Your task to perform on an android device: Clear all items from cart on costco.com. Search for "razer deathadder" on costco.com, select the first entry, and add it to the cart. Image 0: 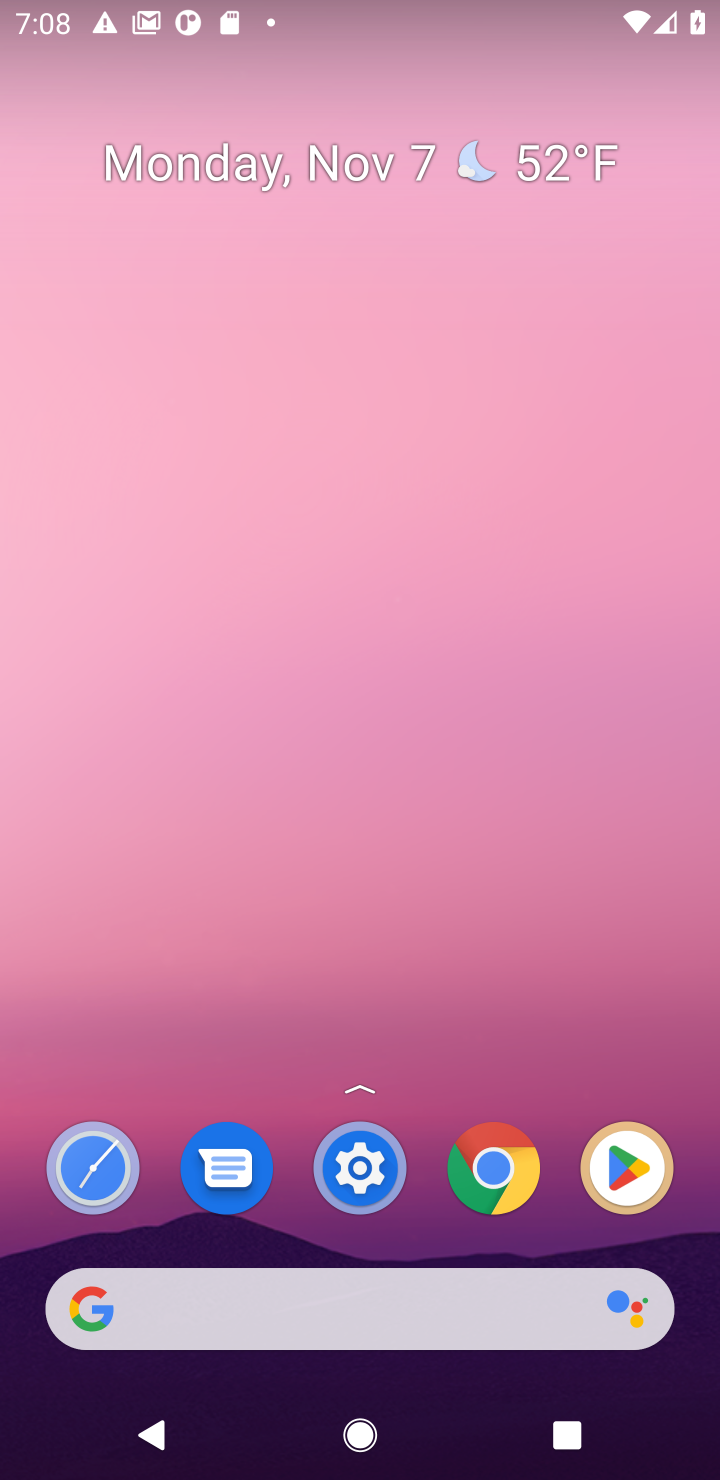
Step 0: click (262, 1335)
Your task to perform on an android device: Clear all items from cart on costco.com. Search for "razer deathadder" on costco.com, select the first entry, and add it to the cart. Image 1: 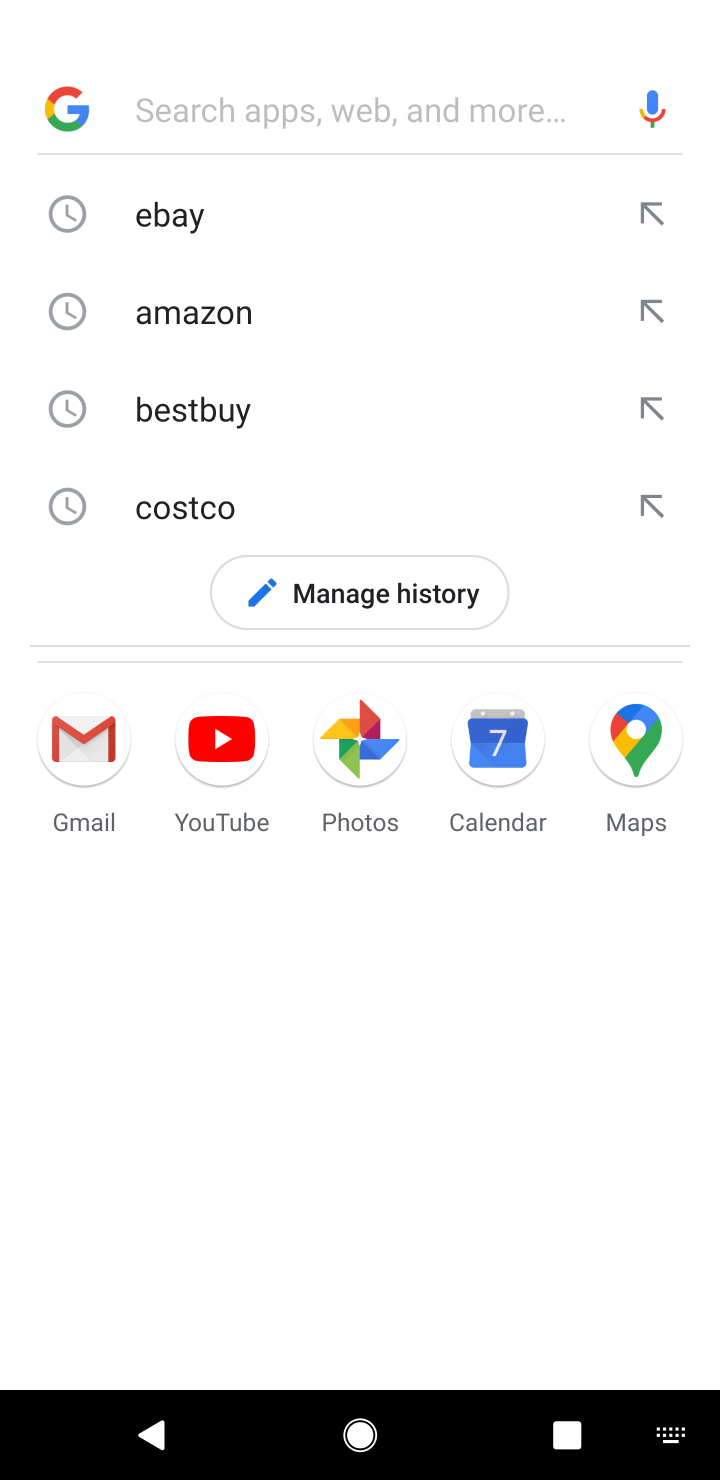
Step 1: click (223, 531)
Your task to perform on an android device: Clear all items from cart on costco.com. Search for "razer deathadder" on costco.com, select the first entry, and add it to the cart. Image 2: 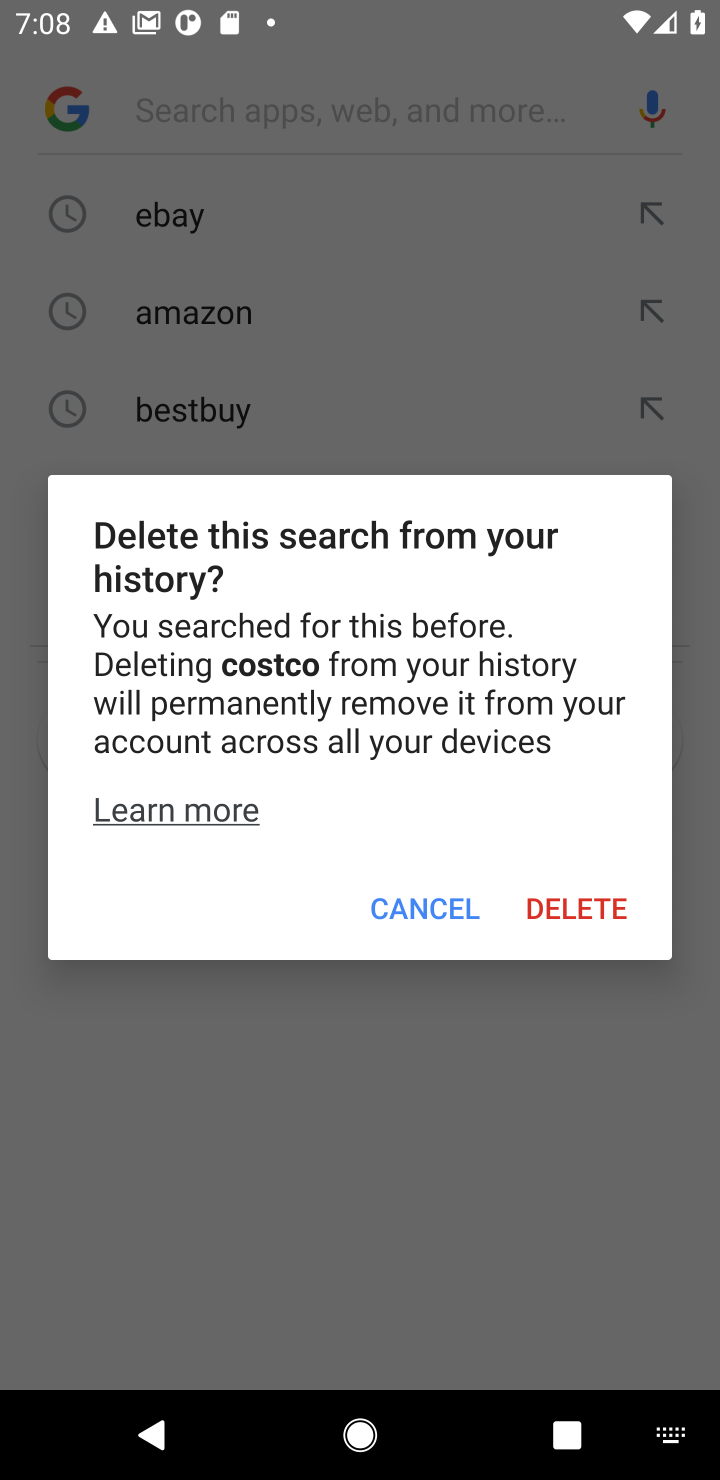
Step 2: click (434, 914)
Your task to perform on an android device: Clear all items from cart on costco.com. Search for "razer deathadder" on costco.com, select the first entry, and add it to the cart. Image 3: 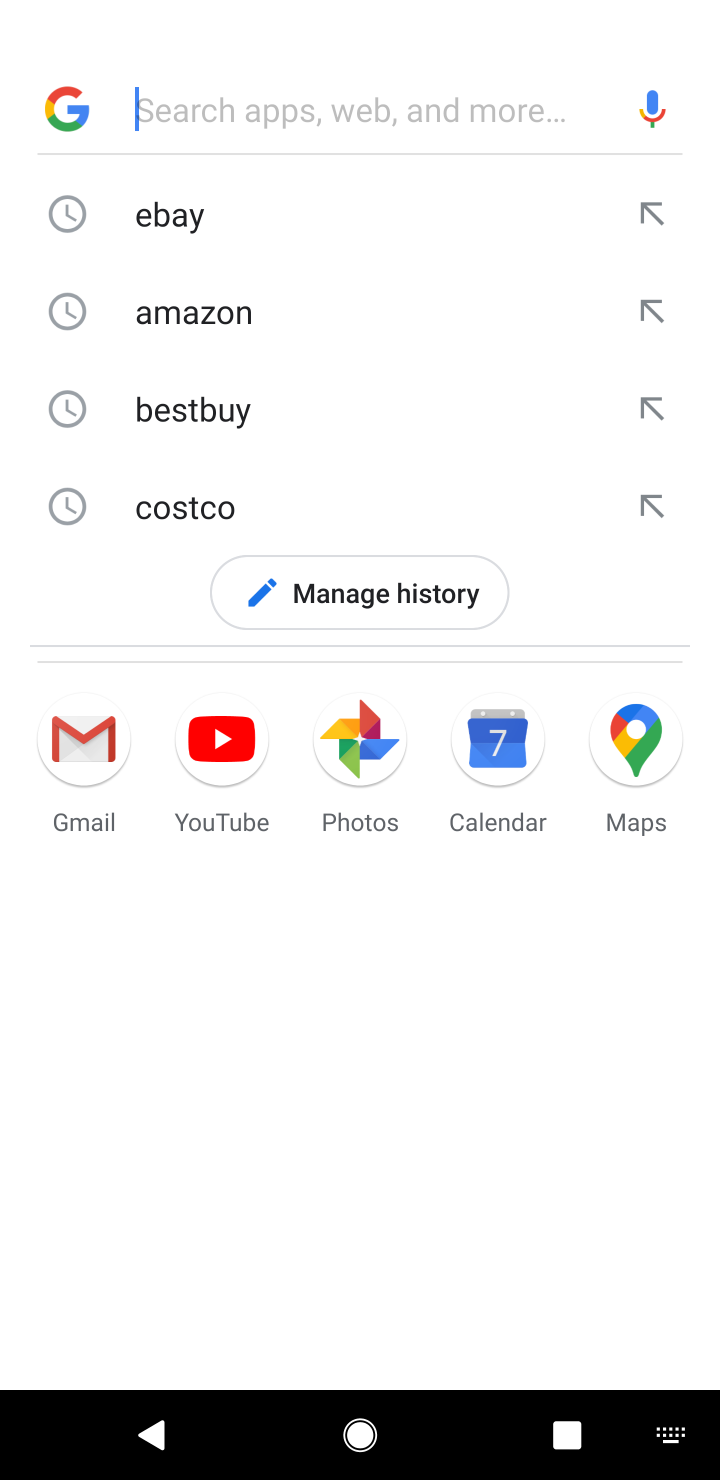
Step 3: type "costco.com"
Your task to perform on an android device: Clear all items from cart on costco.com. Search for "razer deathadder" on costco.com, select the first entry, and add it to the cart. Image 4: 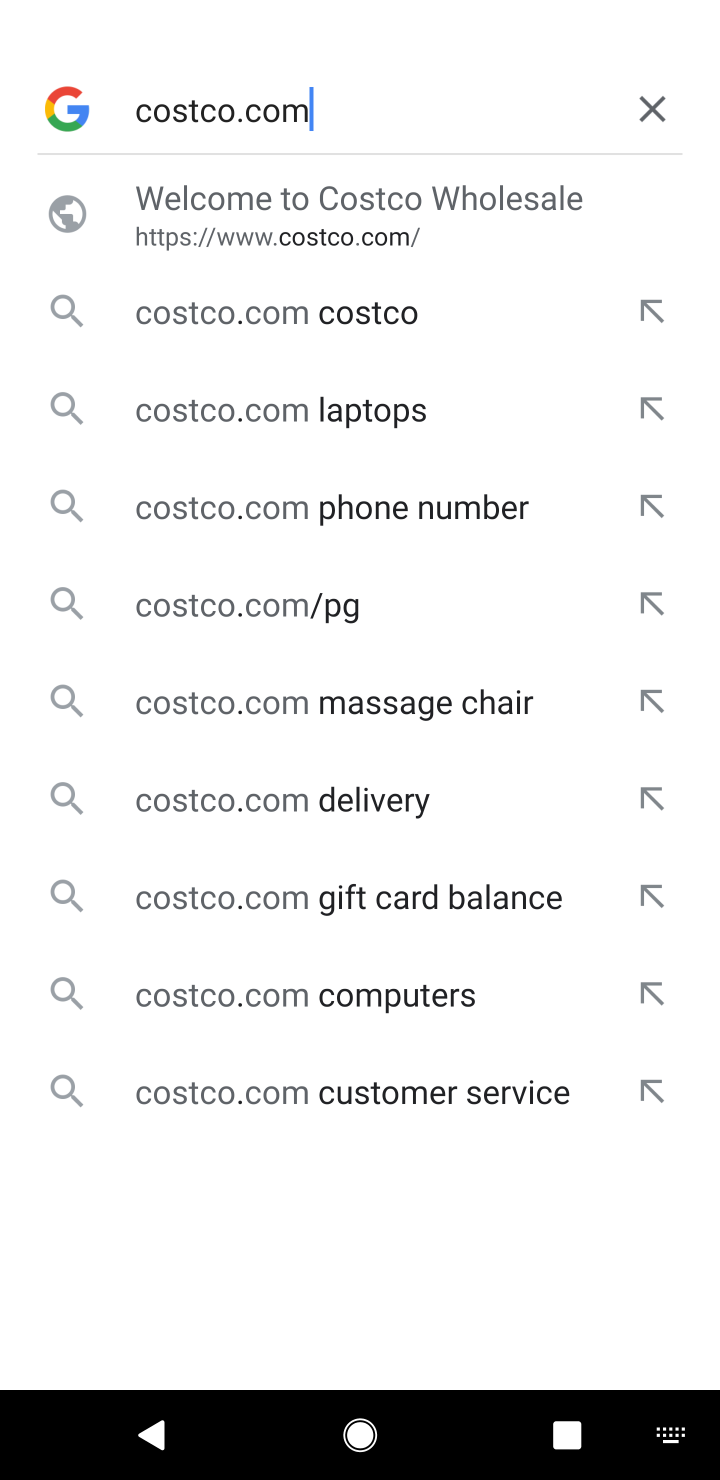
Step 4: type ""
Your task to perform on an android device: Clear all items from cart on costco.com. Search for "razer deathadder" on costco.com, select the first entry, and add it to the cart. Image 5: 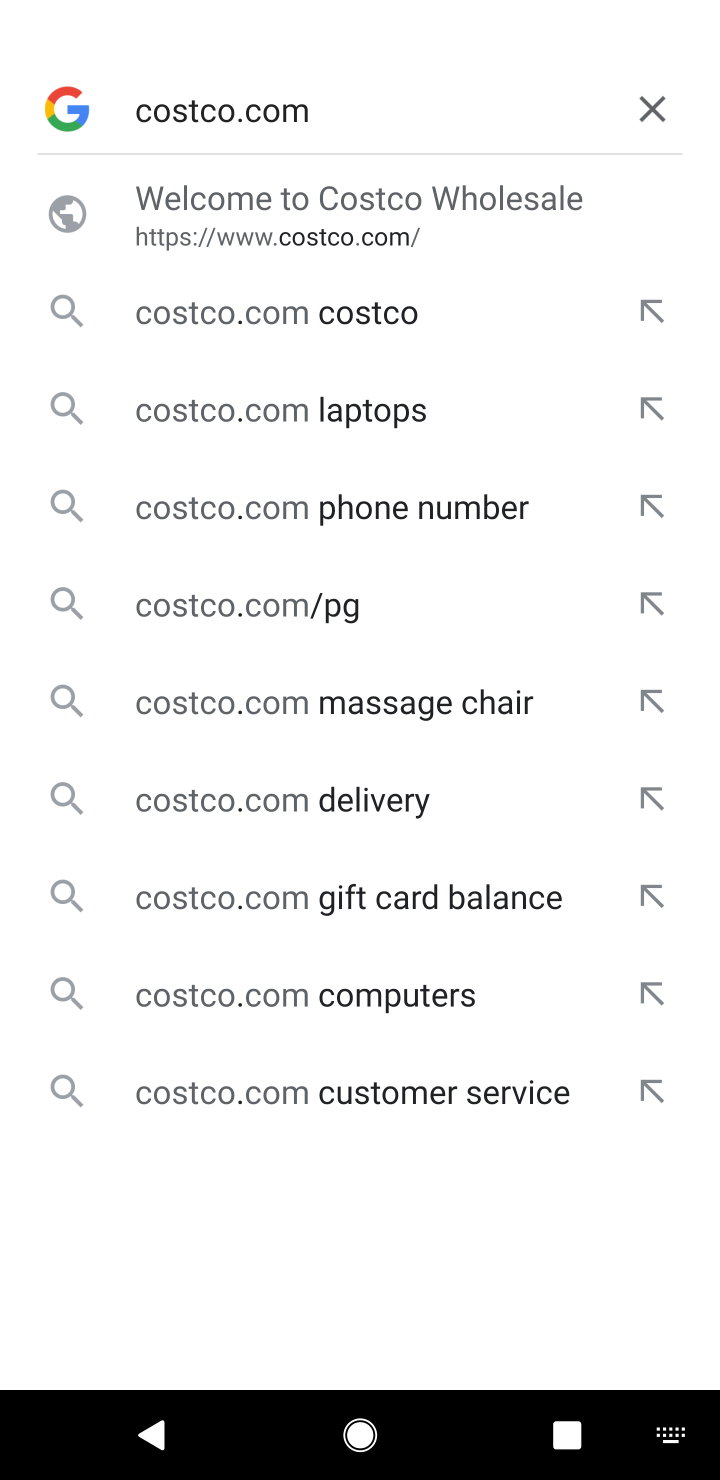
Step 5: press enter
Your task to perform on an android device: Clear all items from cart on costco.com. Search for "razer deathadder" on costco.com, select the first entry, and add it to the cart. Image 6: 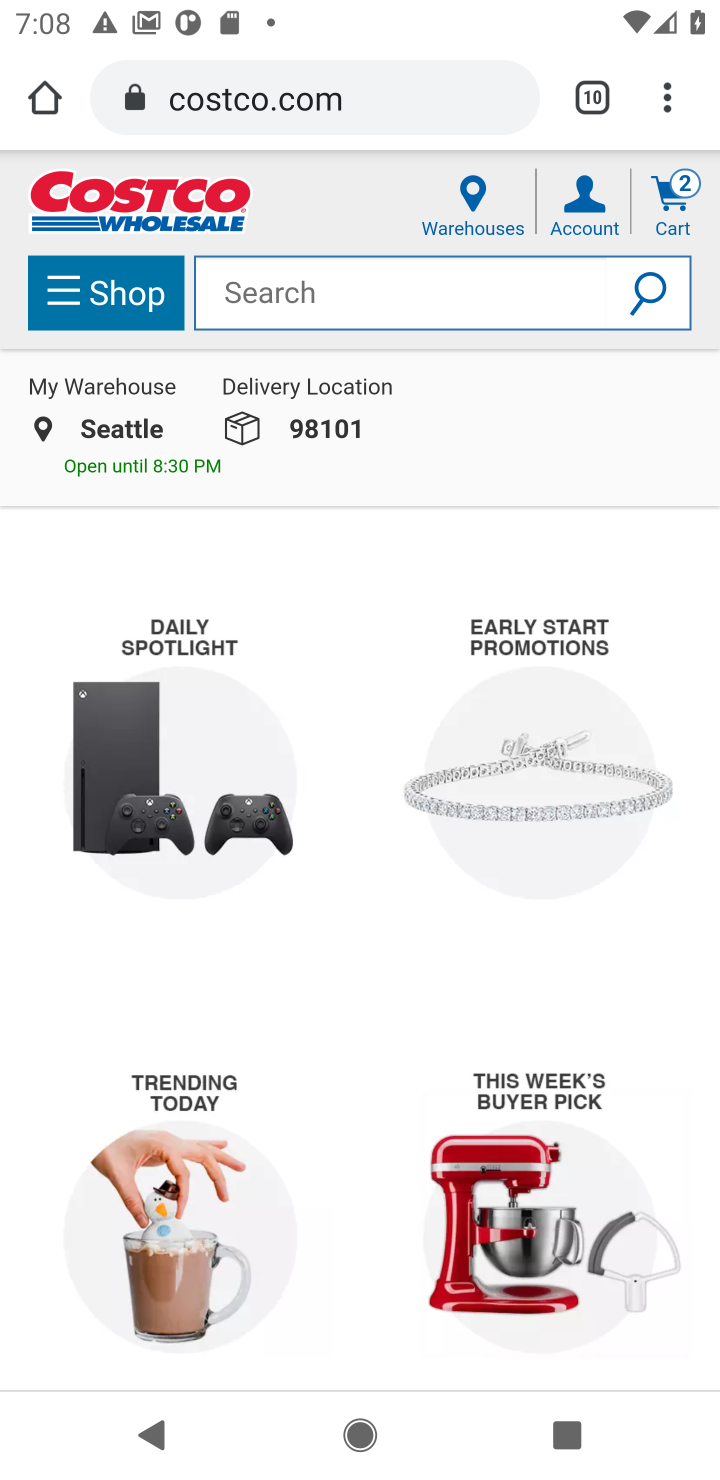
Step 6: click (340, 302)
Your task to perform on an android device: Clear all items from cart on costco.com. Search for "razer deathadder" on costco.com, select the first entry, and add it to the cart. Image 7: 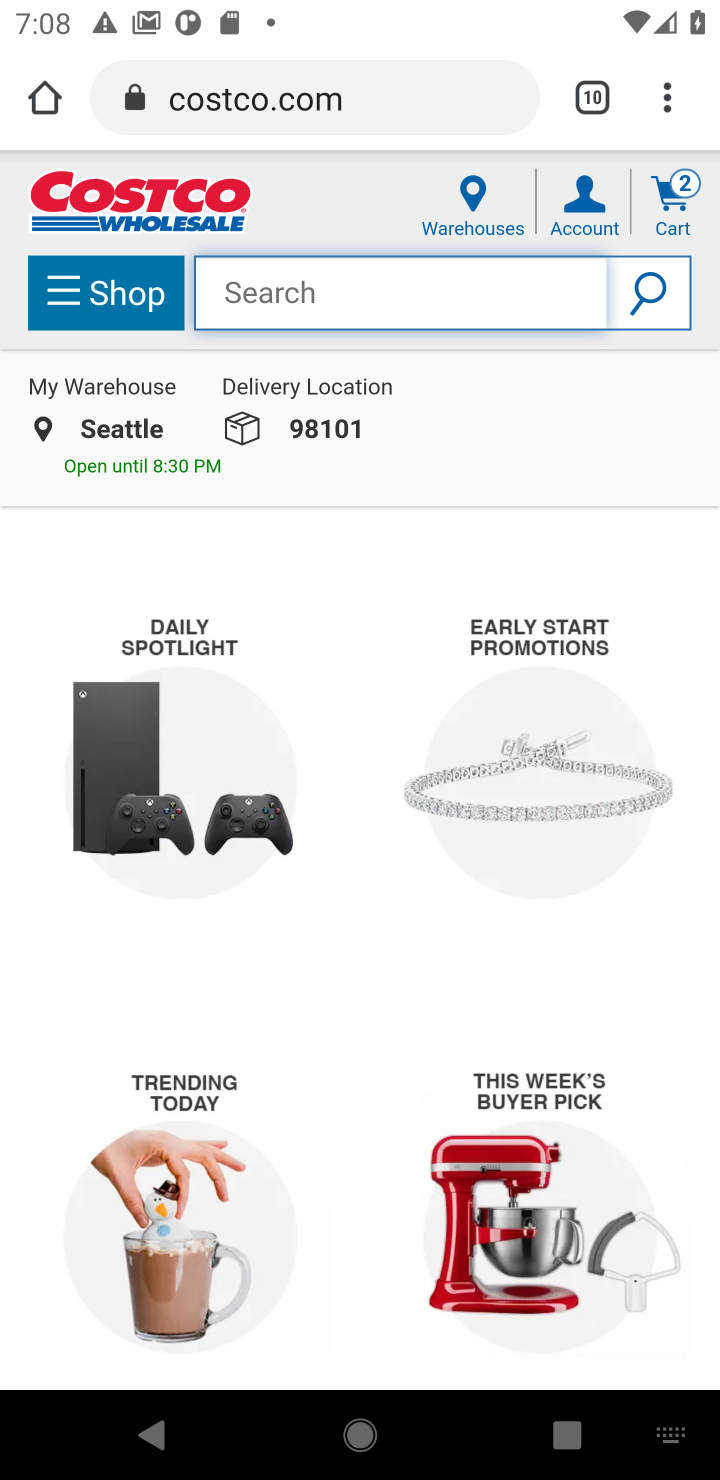
Step 7: click (340, 302)
Your task to perform on an android device: Clear all items from cart on costco.com. Search for "razer deathadder" on costco.com, select the first entry, and add it to the cart. Image 8: 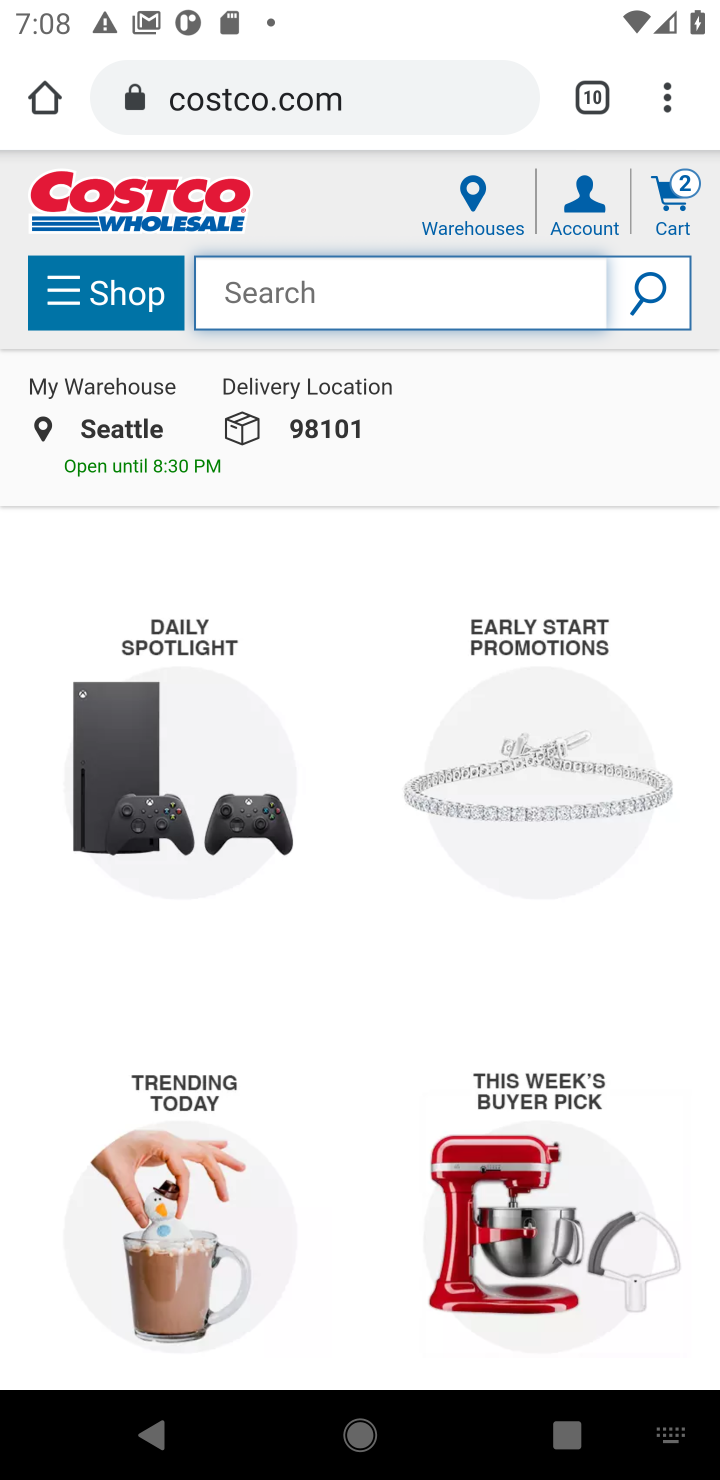
Step 8: click (681, 188)
Your task to perform on an android device: Clear all items from cart on costco.com. Search for "razer deathadder" on costco.com, select the first entry, and add it to the cart. Image 9: 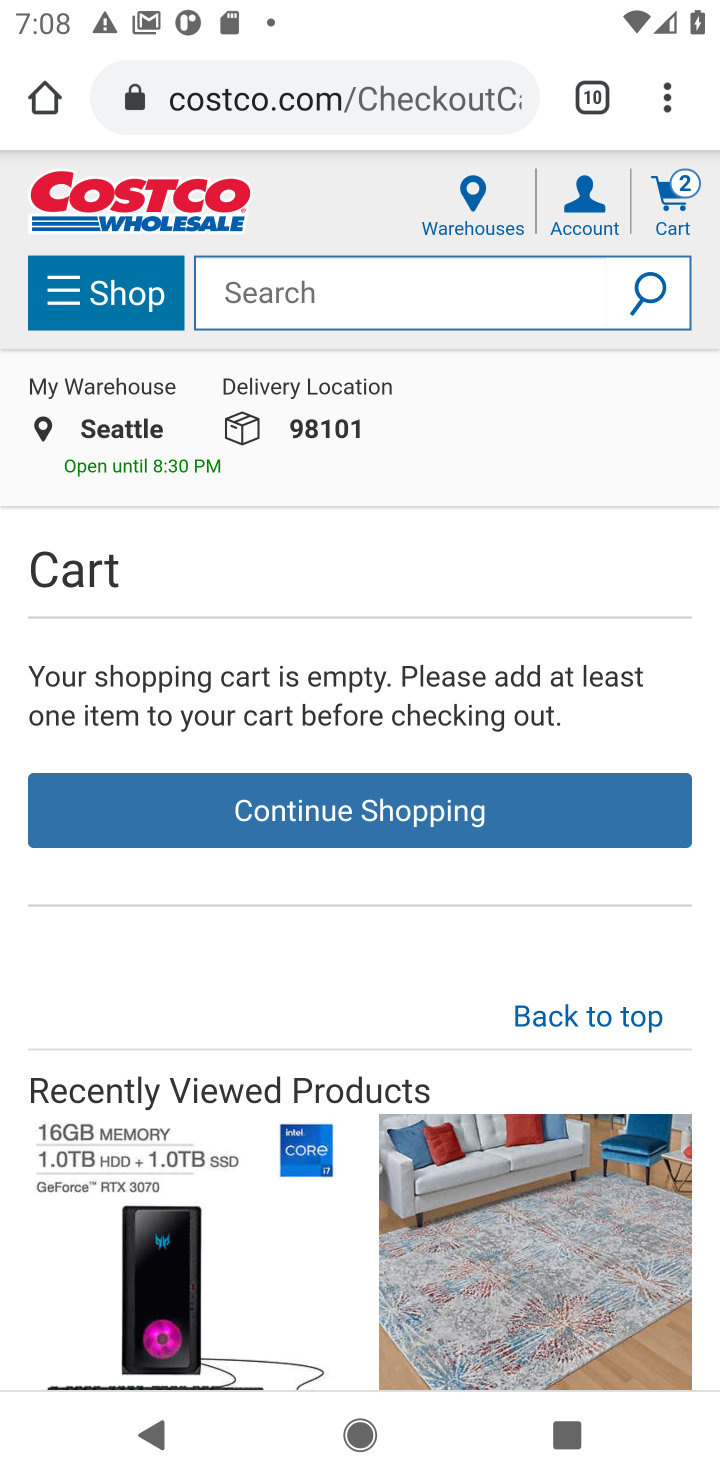
Step 9: drag from (283, 973) to (350, 482)
Your task to perform on an android device: Clear all items from cart on costco.com. Search for "razer deathadder" on costco.com, select the first entry, and add it to the cart. Image 10: 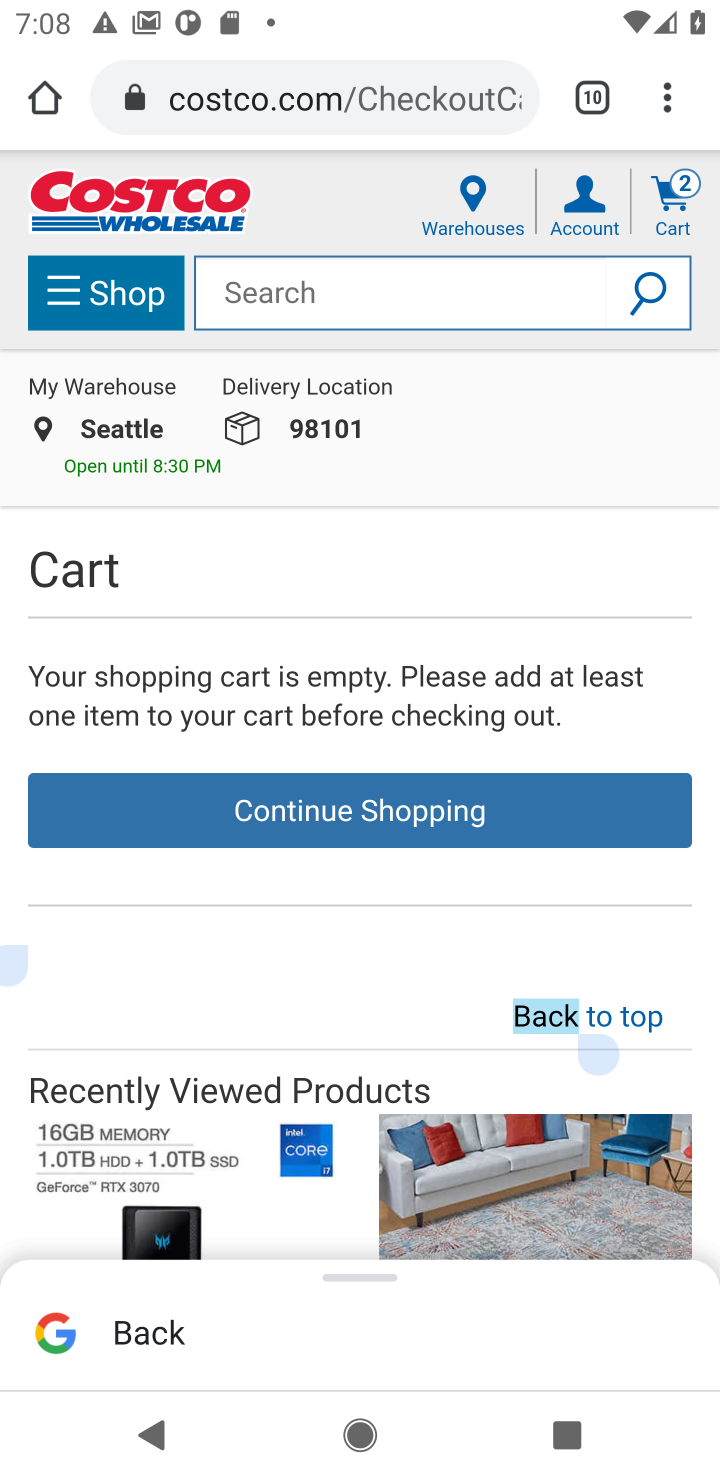
Step 10: drag from (325, 947) to (367, 541)
Your task to perform on an android device: Clear all items from cart on costco.com. Search for "razer deathadder" on costco.com, select the first entry, and add it to the cart. Image 11: 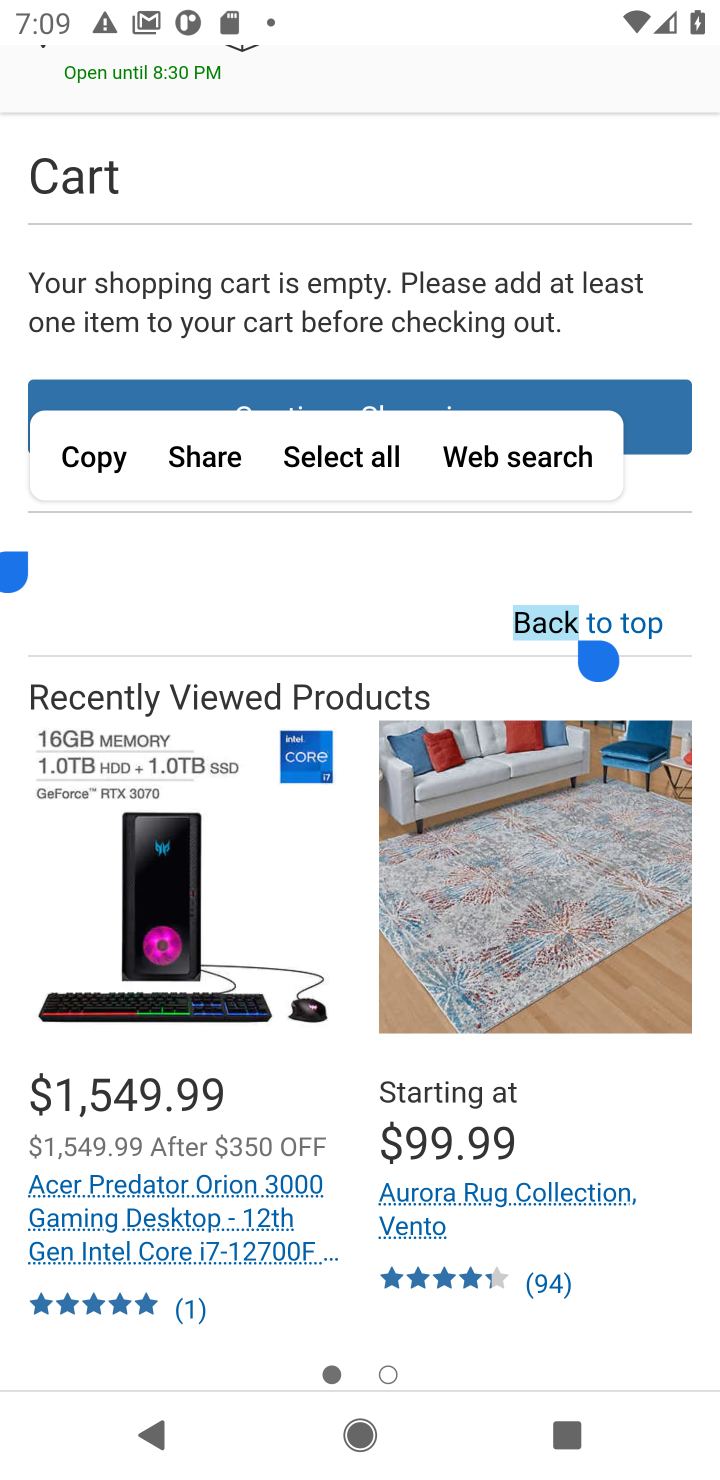
Step 11: click (274, 585)
Your task to perform on an android device: Clear all items from cart on costco.com. Search for "razer deathadder" on costco.com, select the first entry, and add it to the cart. Image 12: 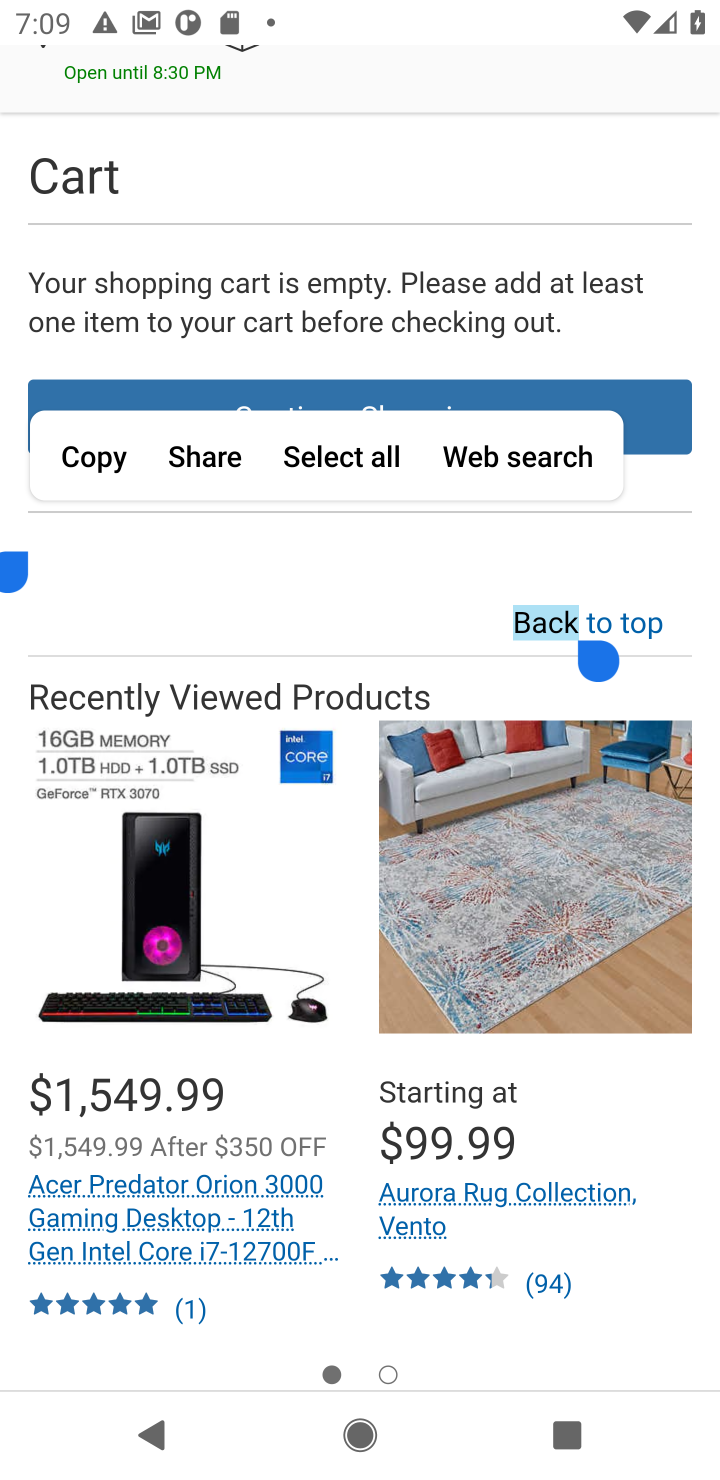
Step 12: drag from (276, 870) to (300, 430)
Your task to perform on an android device: Clear all items from cart on costco.com. Search for "razer deathadder" on costco.com, select the first entry, and add it to the cart. Image 13: 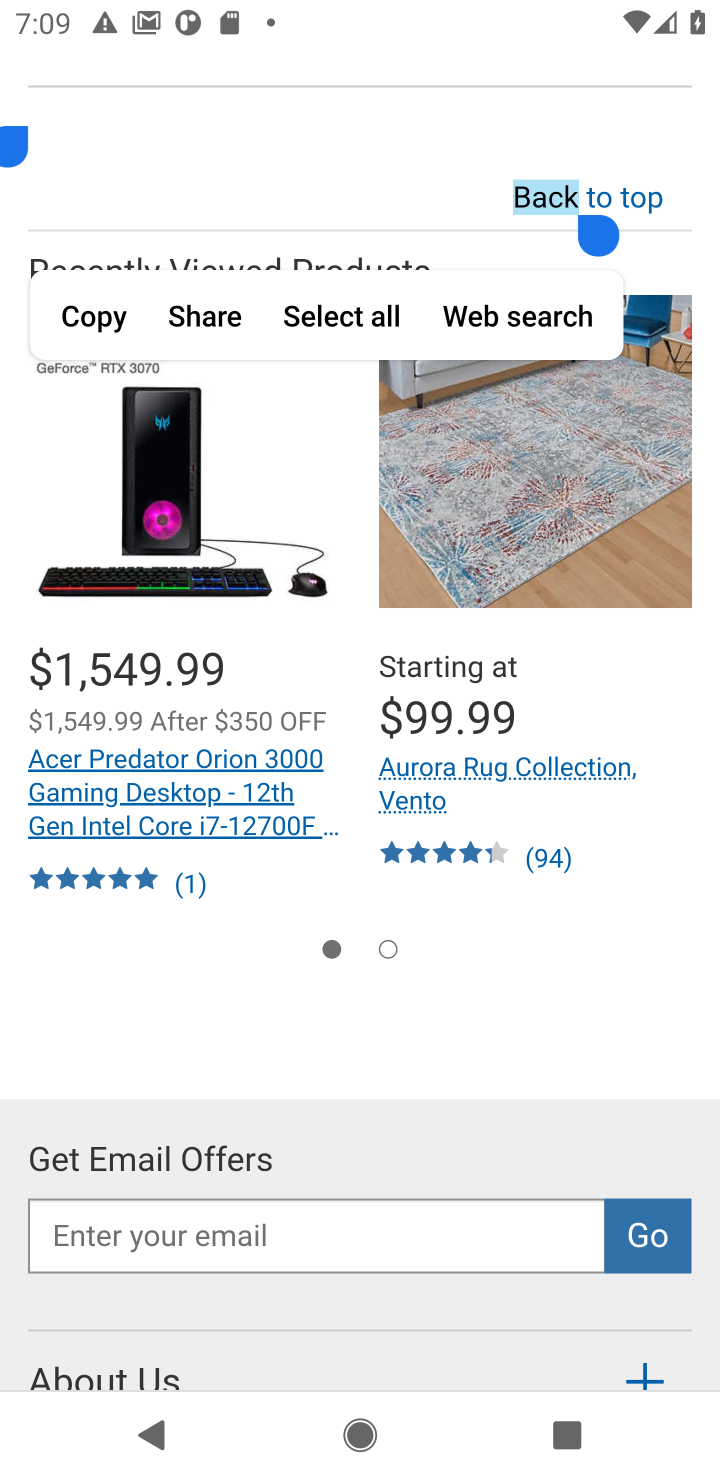
Step 13: click (378, 201)
Your task to perform on an android device: Clear all items from cart on costco.com. Search for "razer deathadder" on costco.com, select the first entry, and add it to the cart. Image 14: 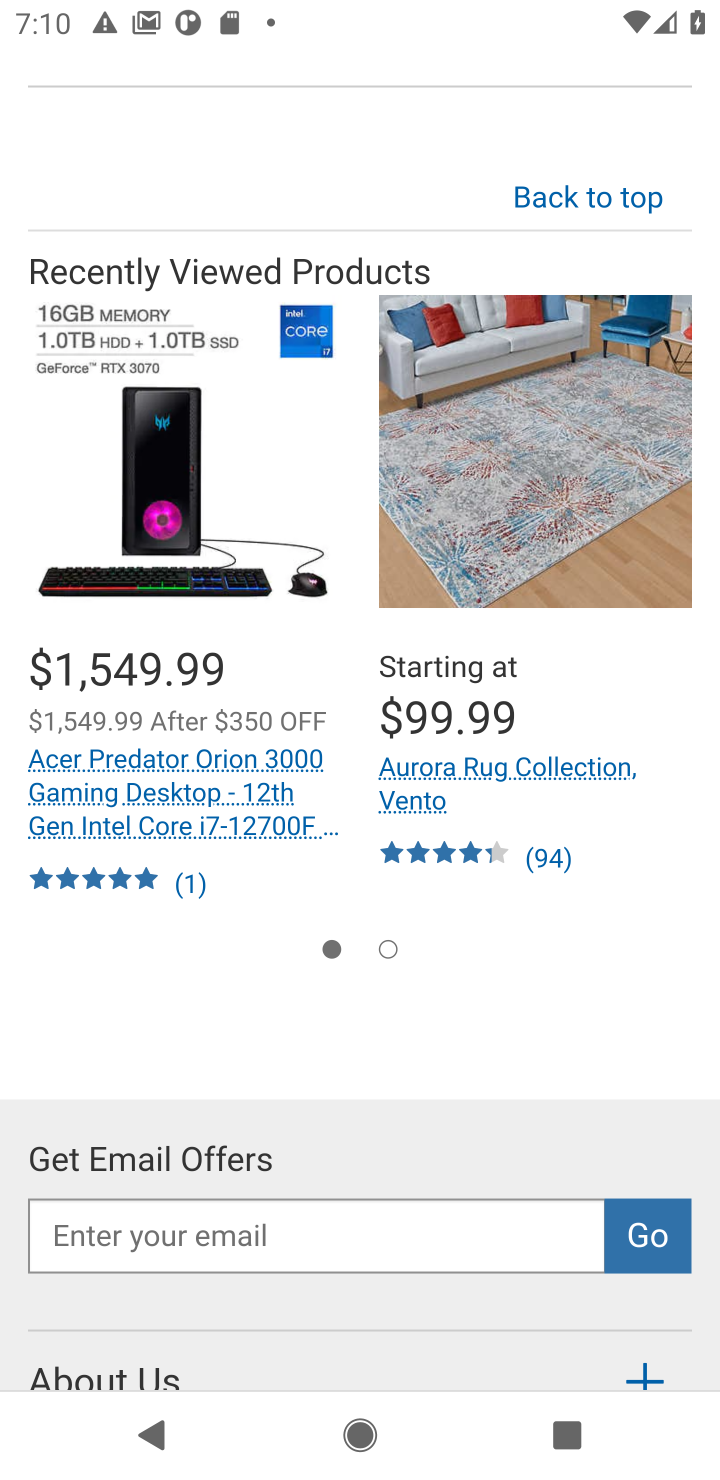
Step 14: click (177, 769)
Your task to perform on an android device: Clear all items from cart on costco.com. Search for "razer deathadder" on costco.com, select the first entry, and add it to the cart. Image 15: 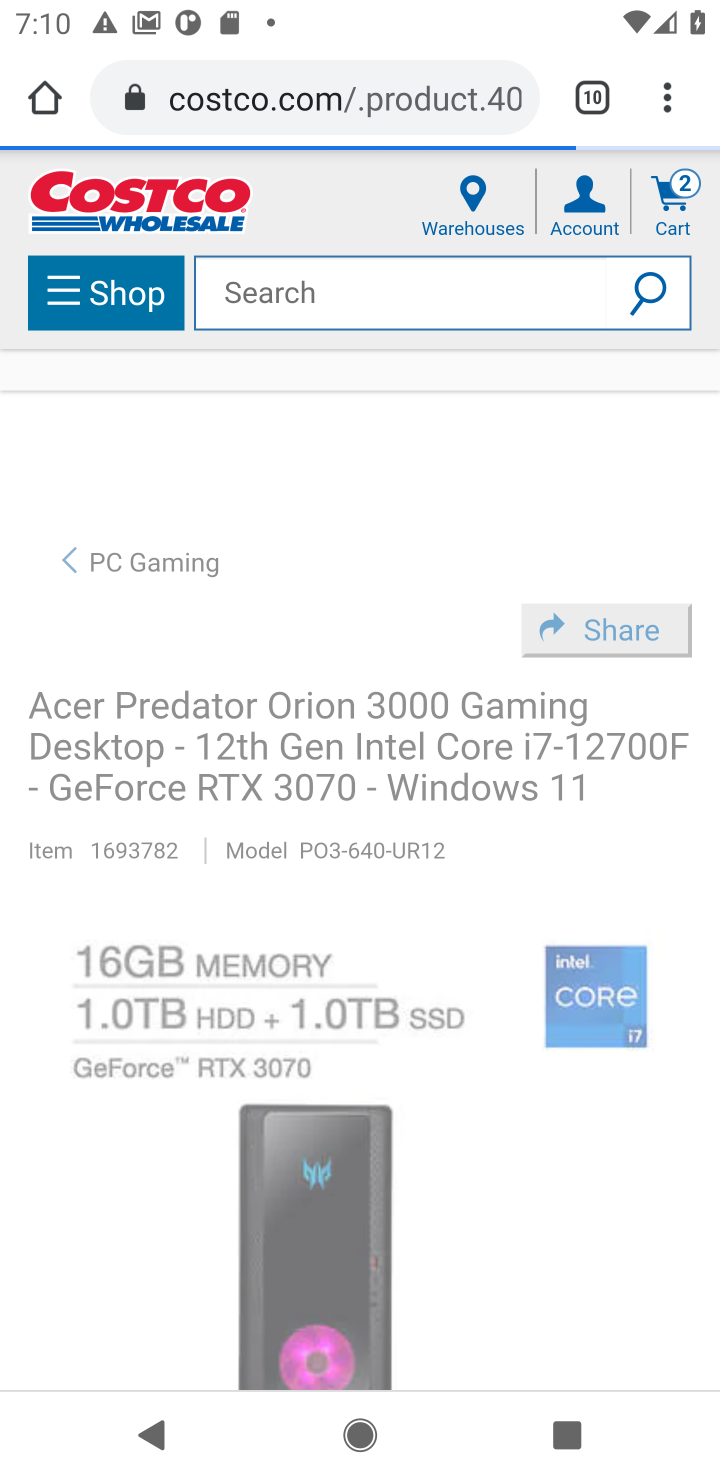
Step 15: drag from (601, 1146) to (476, 535)
Your task to perform on an android device: Clear all items from cart on costco.com. Search for "razer deathadder" on costco.com, select the first entry, and add it to the cart. Image 16: 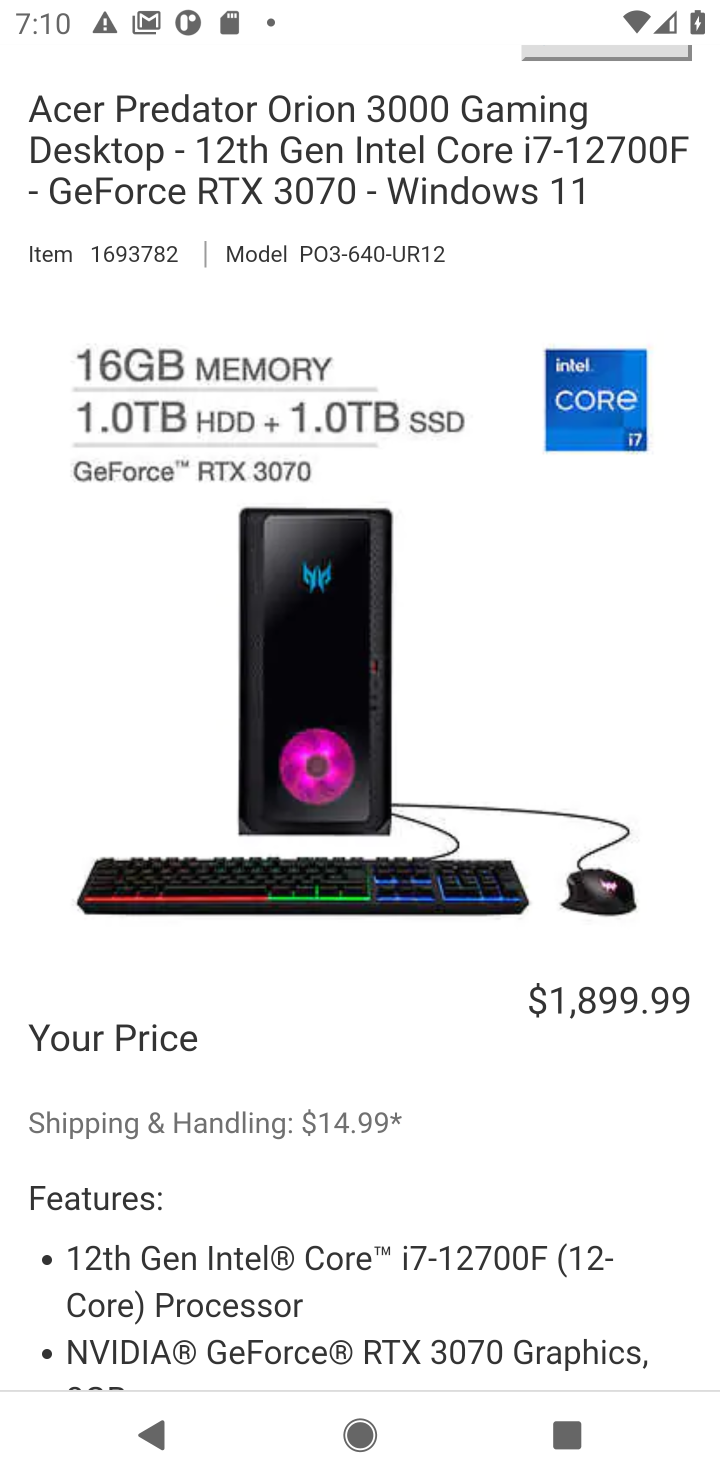
Step 16: drag from (364, 1067) to (289, 413)
Your task to perform on an android device: Clear all items from cart on costco.com. Search for "razer deathadder" on costco.com, select the first entry, and add it to the cart. Image 17: 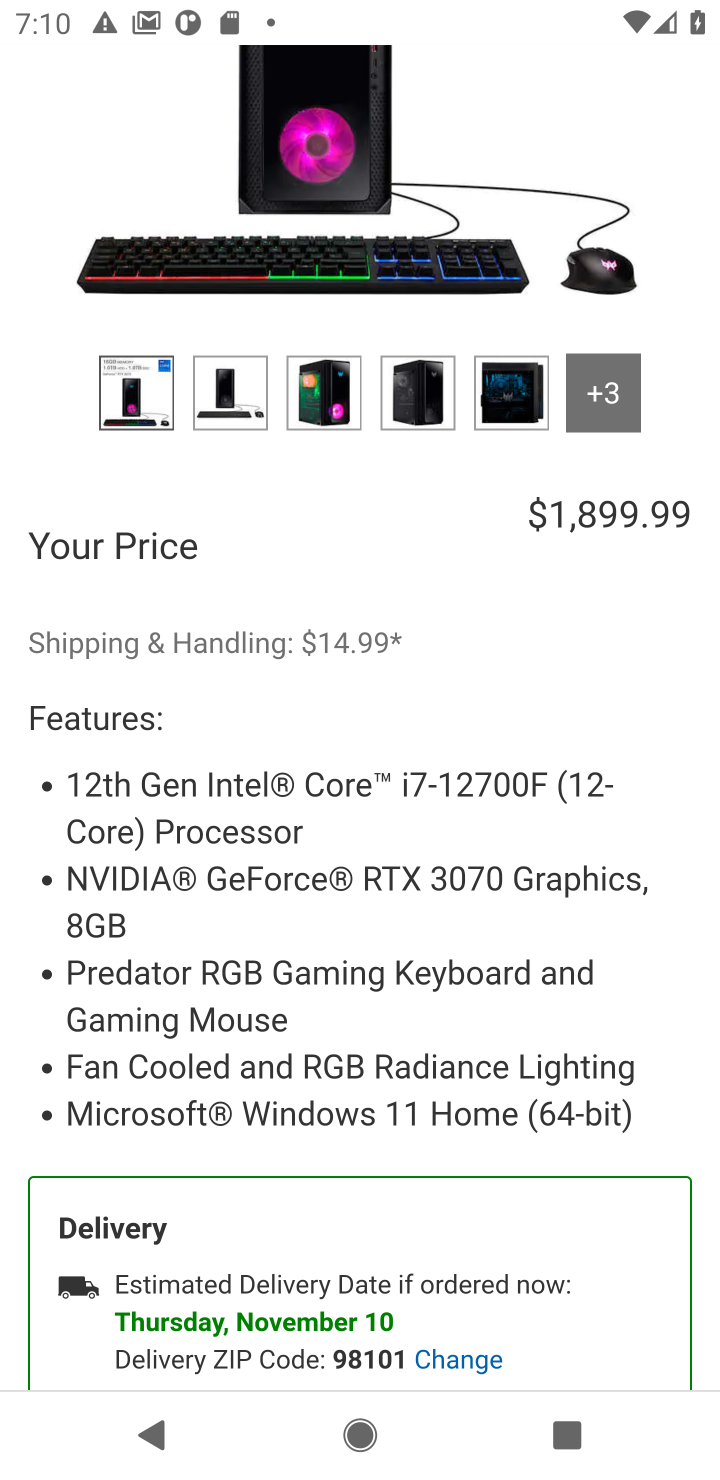
Step 17: click (101, 1333)
Your task to perform on an android device: Clear all items from cart on costco.com. Search for "razer deathadder" on costco.com, select the first entry, and add it to the cart. Image 18: 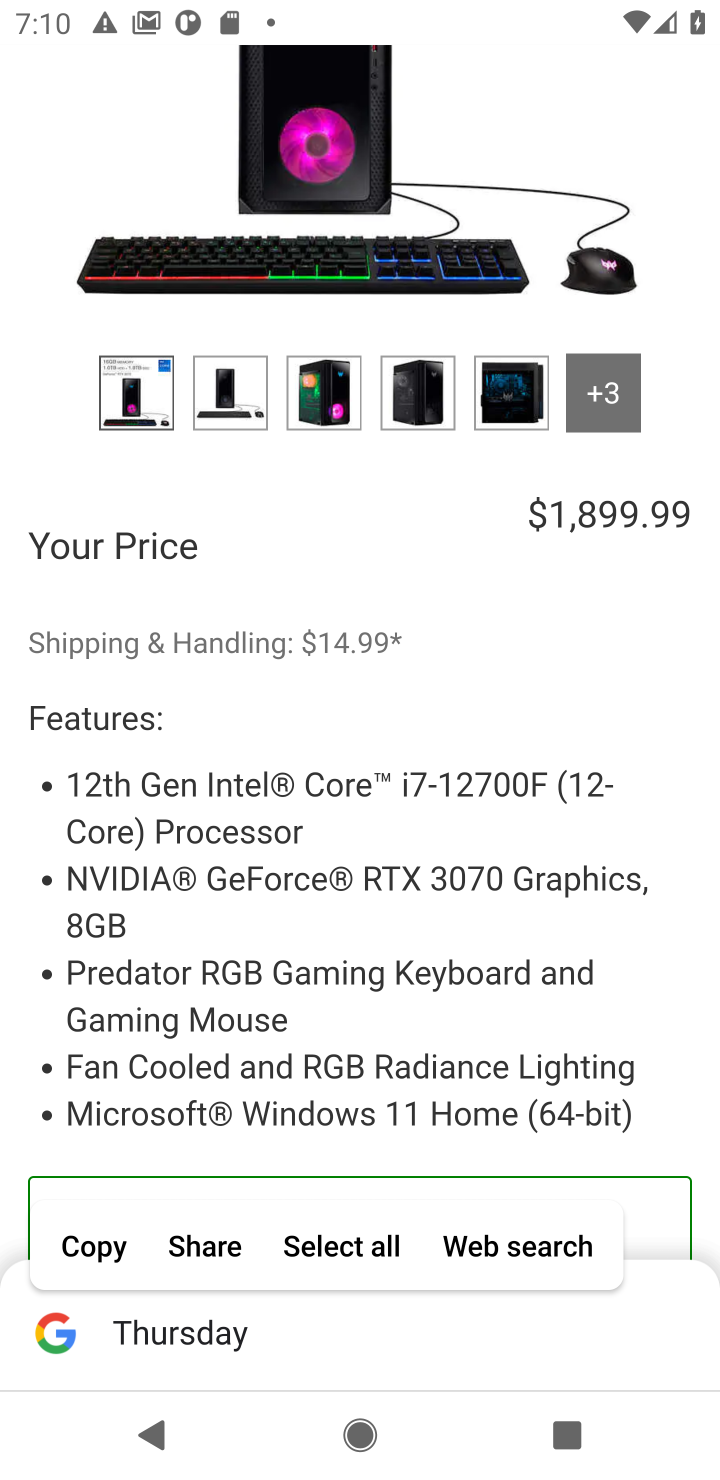
Step 18: drag from (331, 1034) to (335, 538)
Your task to perform on an android device: Clear all items from cart on costco.com. Search for "razer deathadder" on costco.com, select the first entry, and add it to the cart. Image 19: 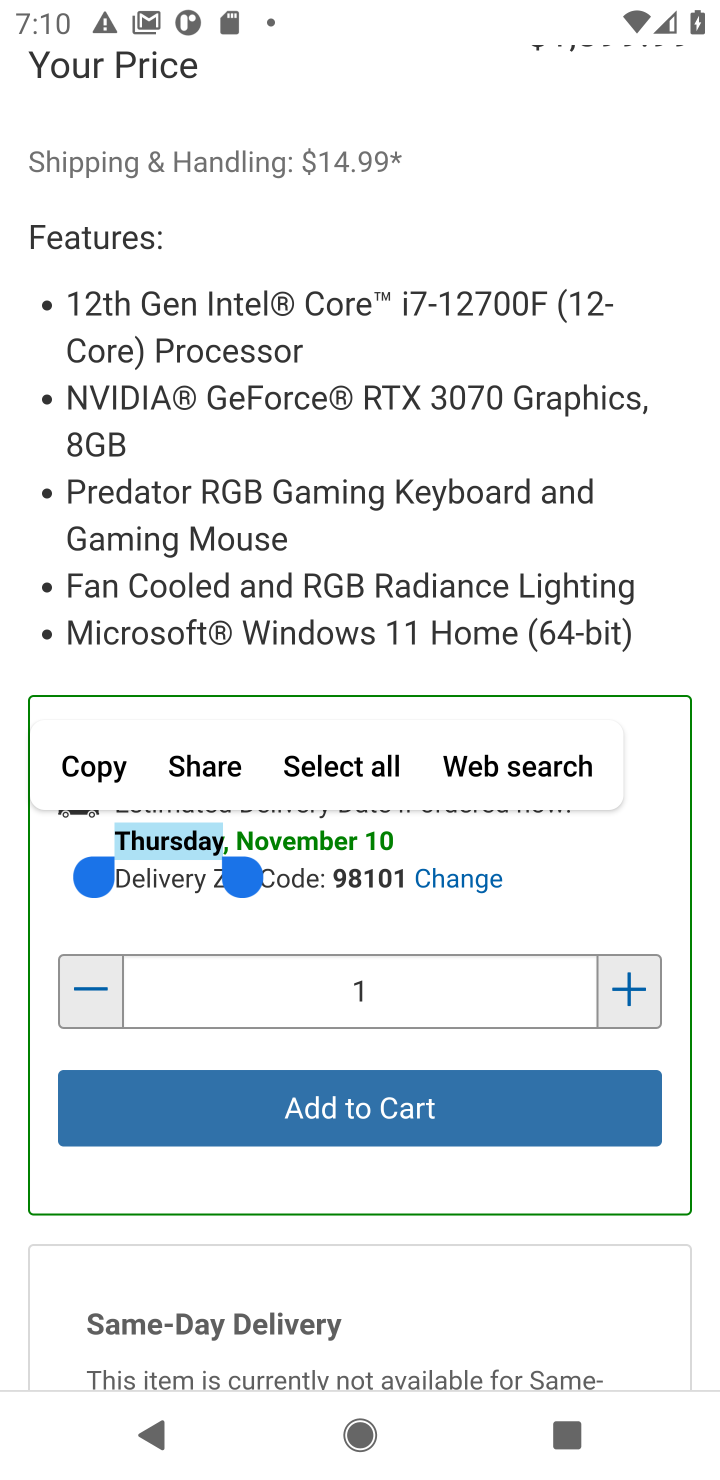
Step 19: click (92, 990)
Your task to perform on an android device: Clear all items from cart on costco.com. Search for "razer deathadder" on costco.com, select the first entry, and add it to the cart. Image 20: 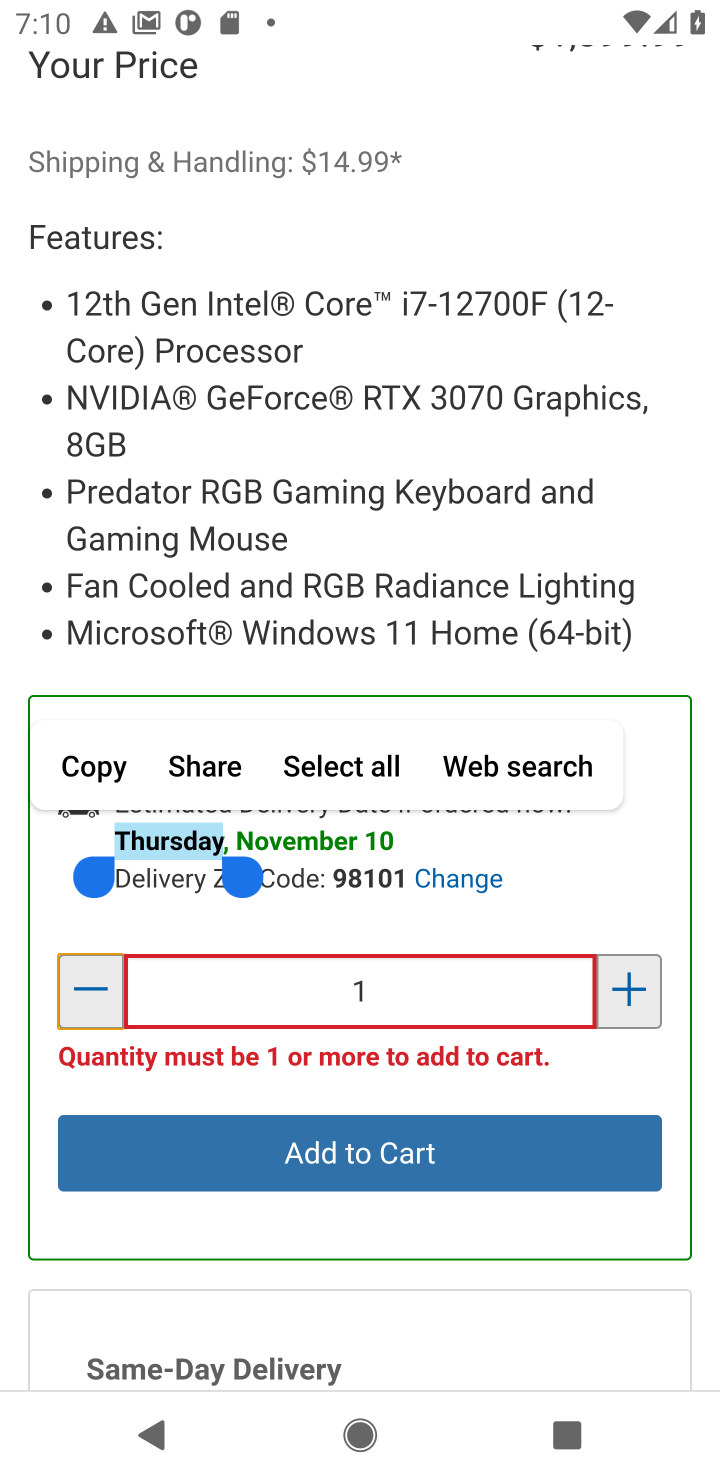
Step 20: click (92, 990)
Your task to perform on an android device: Clear all items from cart on costco.com. Search for "razer deathadder" on costco.com, select the first entry, and add it to the cart. Image 21: 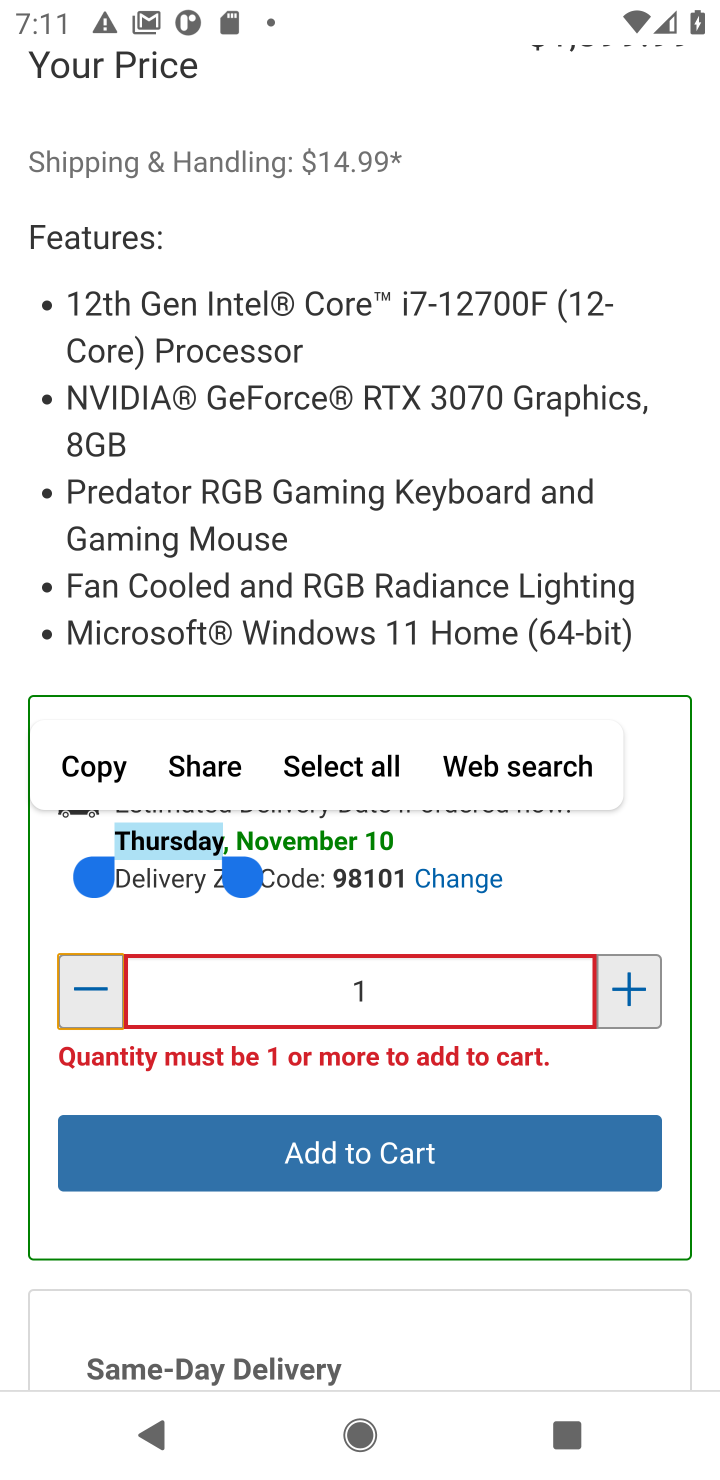
Step 21: click (92, 990)
Your task to perform on an android device: Clear all items from cart on costco.com. Search for "razer deathadder" on costco.com, select the first entry, and add it to the cart. Image 22: 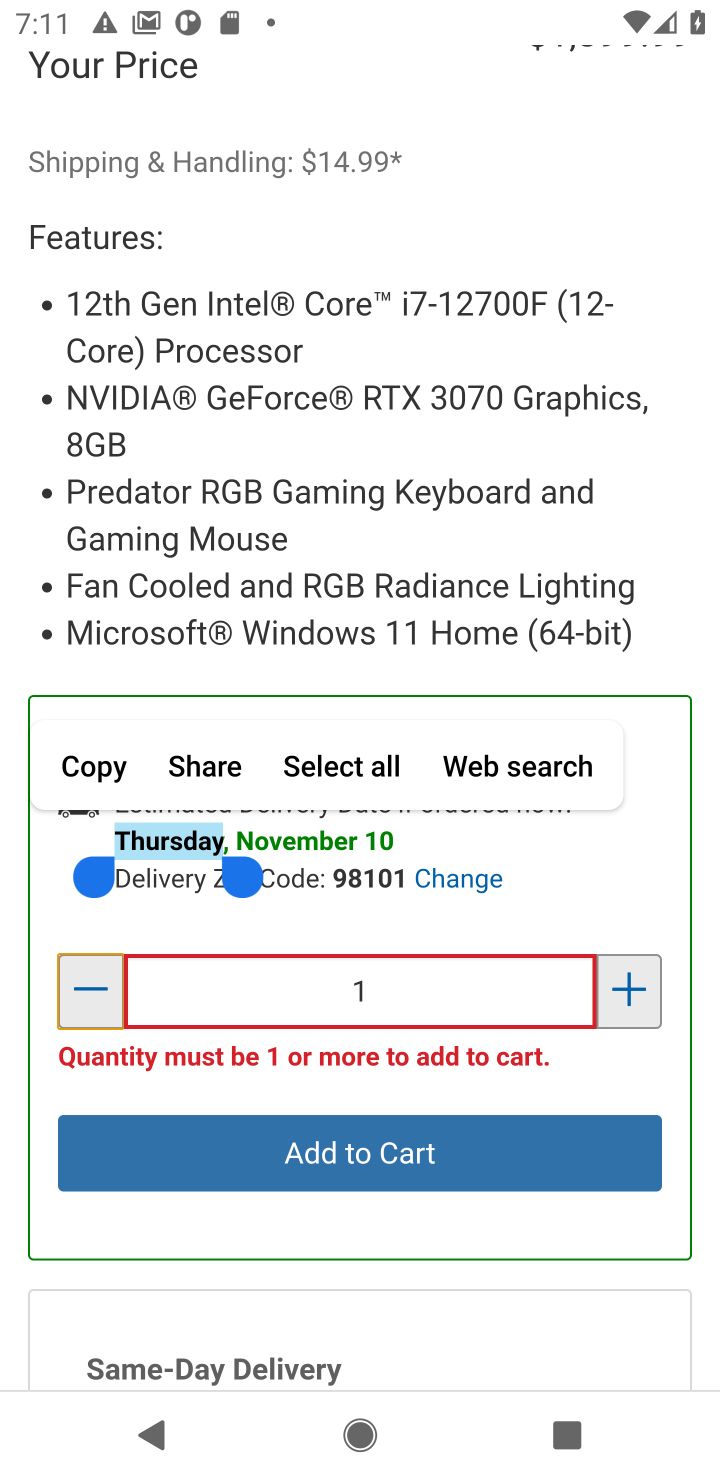
Step 22: click (92, 990)
Your task to perform on an android device: Clear all items from cart on costco.com. Search for "razer deathadder" on costco.com, select the first entry, and add it to the cart. Image 23: 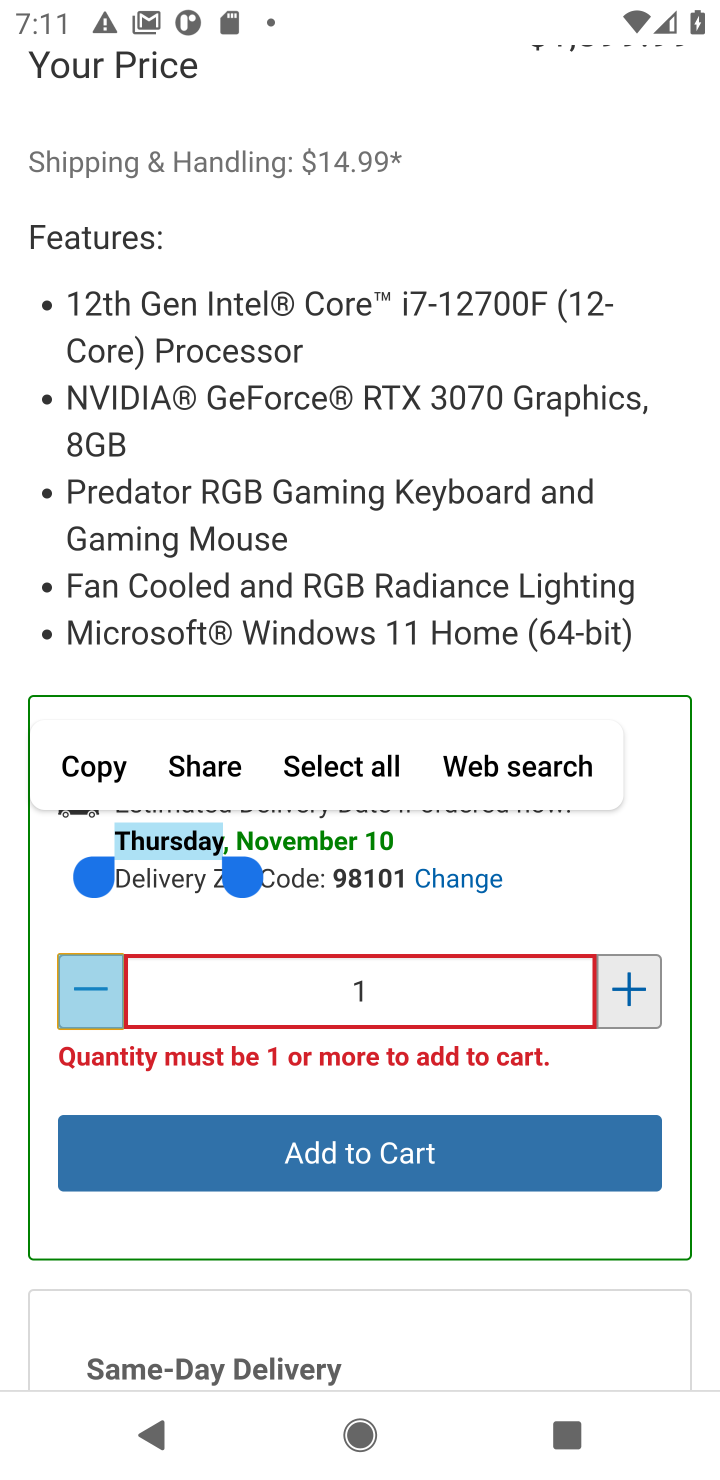
Step 23: click (92, 990)
Your task to perform on an android device: Clear all items from cart on costco.com. Search for "razer deathadder" on costco.com, select the first entry, and add it to the cart. Image 24: 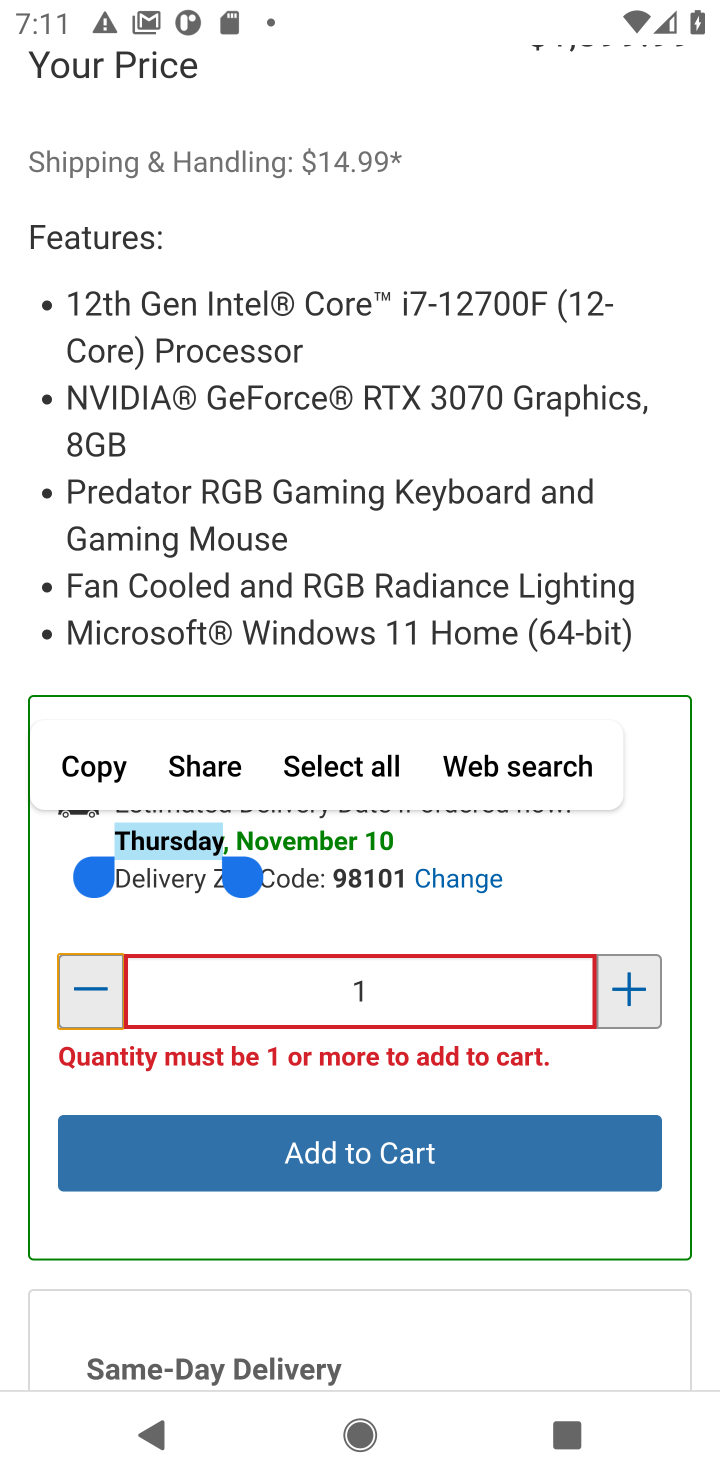
Step 24: click (326, 996)
Your task to perform on an android device: Clear all items from cart on costco.com. Search for "razer deathadder" on costco.com, select the first entry, and add it to the cart. Image 25: 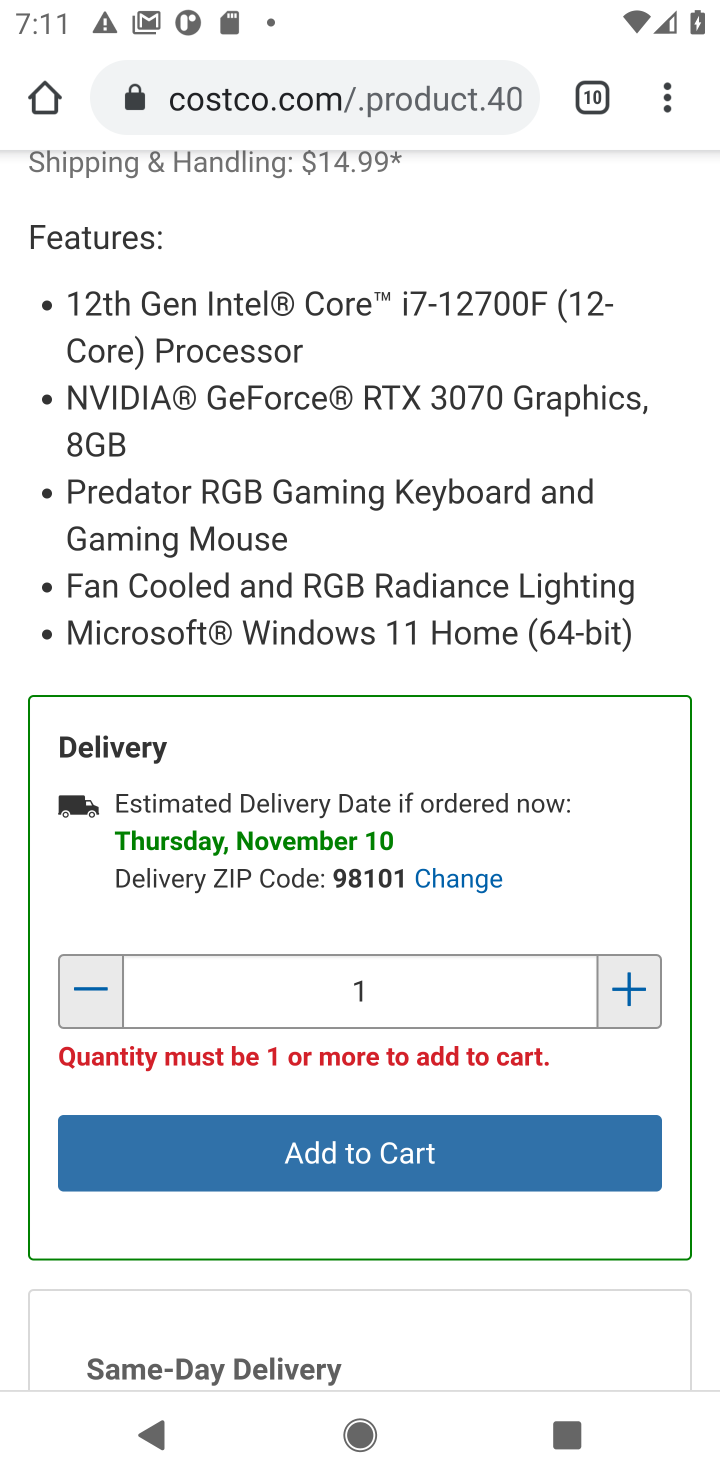
Step 25: task complete